Your task to perform on an android device: Go to eBay Image 0: 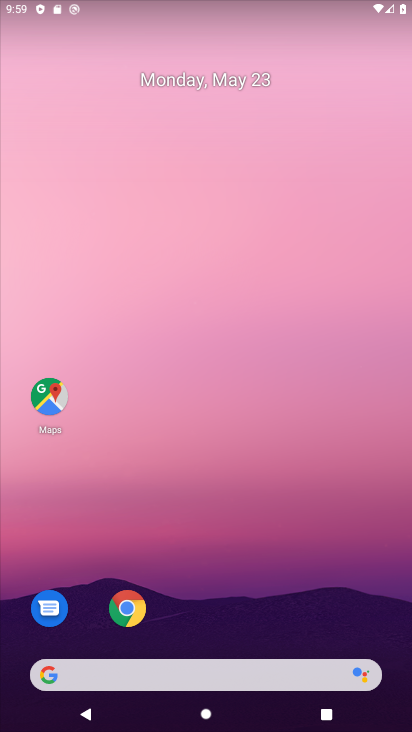
Step 0: click (129, 617)
Your task to perform on an android device: Go to eBay Image 1: 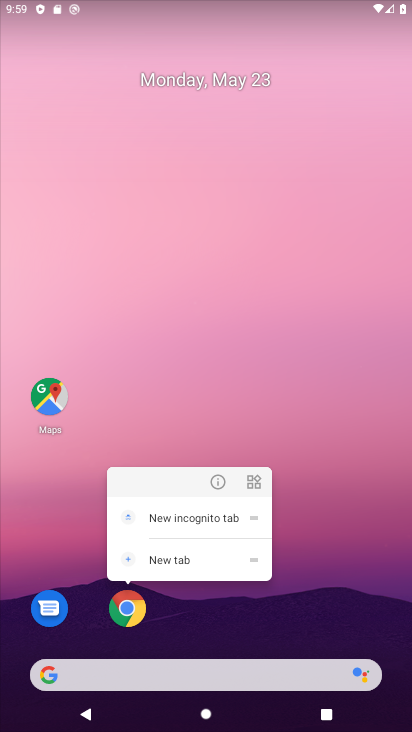
Step 1: click (130, 605)
Your task to perform on an android device: Go to eBay Image 2: 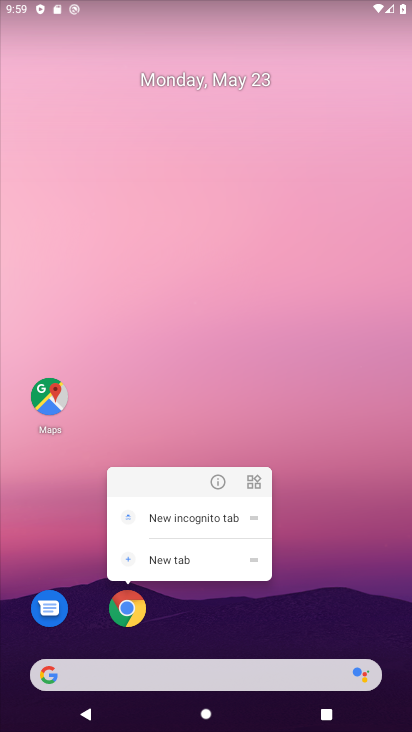
Step 2: click (136, 608)
Your task to perform on an android device: Go to eBay Image 3: 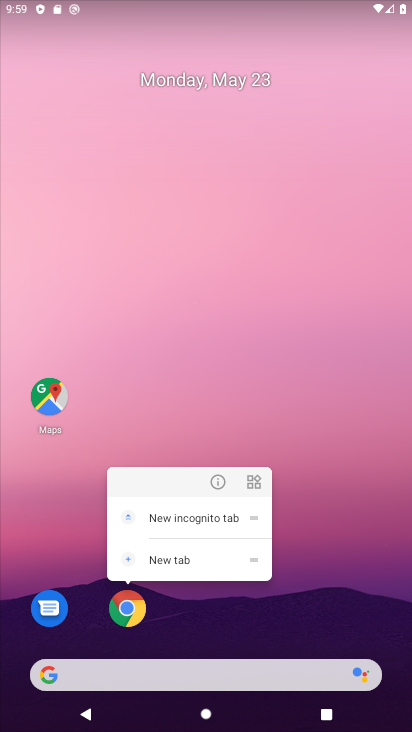
Step 3: click (134, 613)
Your task to perform on an android device: Go to eBay Image 4: 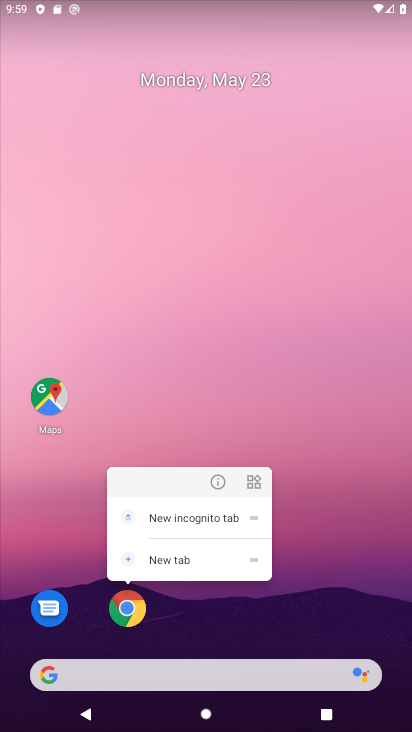
Step 4: click (134, 613)
Your task to perform on an android device: Go to eBay Image 5: 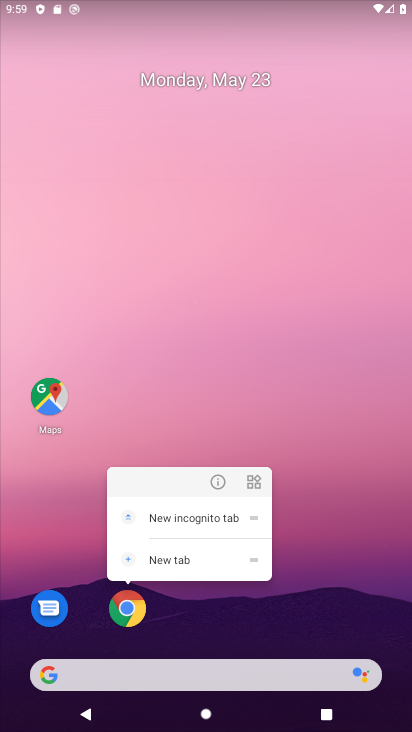
Step 5: click (127, 615)
Your task to perform on an android device: Go to eBay Image 6: 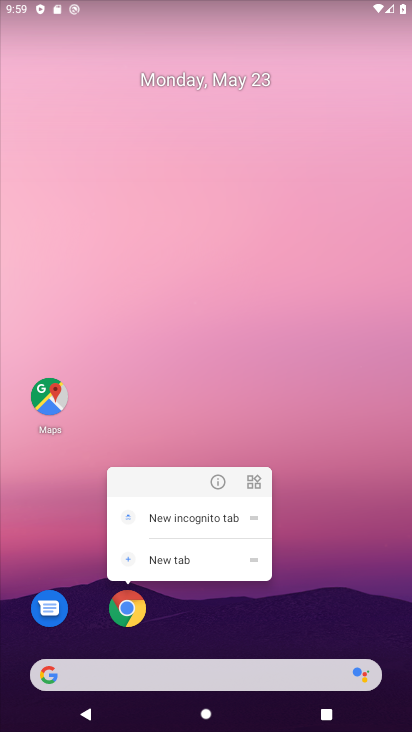
Step 6: click (127, 611)
Your task to perform on an android device: Go to eBay Image 7: 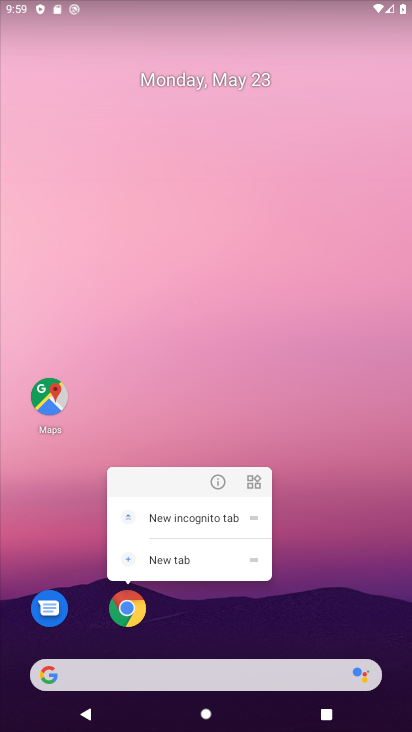
Step 7: click (128, 620)
Your task to perform on an android device: Go to eBay Image 8: 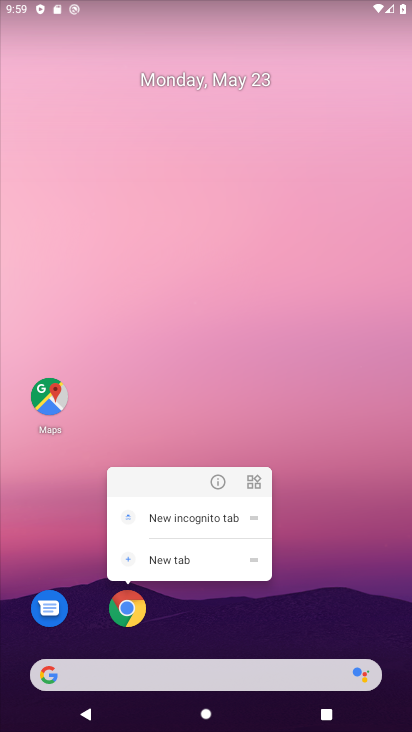
Step 8: click (128, 607)
Your task to perform on an android device: Go to eBay Image 9: 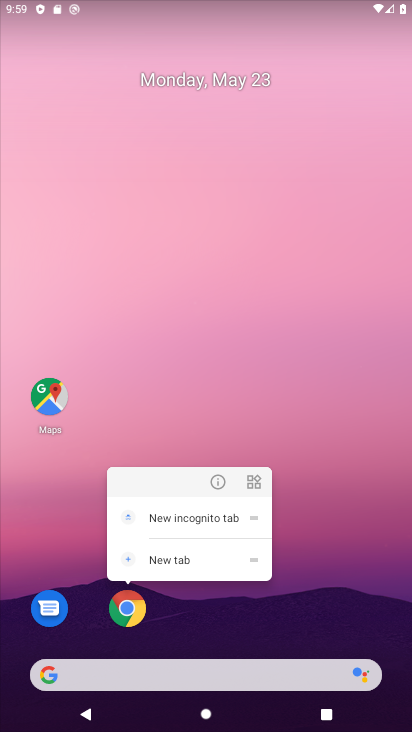
Step 9: click (131, 615)
Your task to perform on an android device: Go to eBay Image 10: 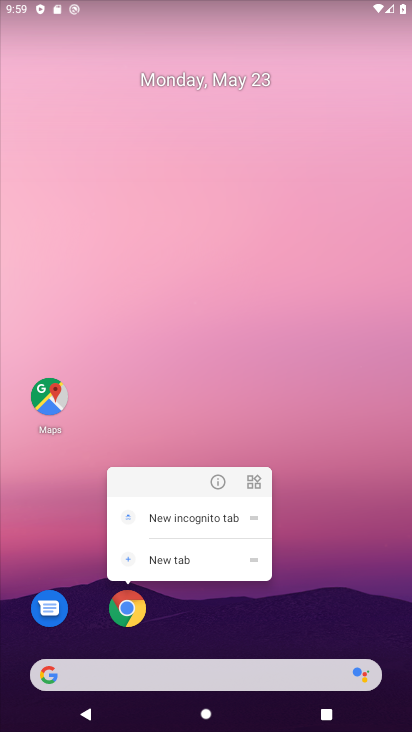
Step 10: click (133, 618)
Your task to perform on an android device: Go to eBay Image 11: 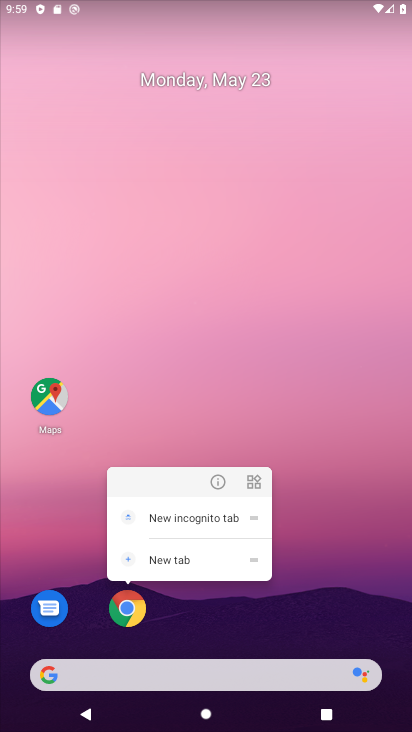
Step 11: click (134, 621)
Your task to perform on an android device: Go to eBay Image 12: 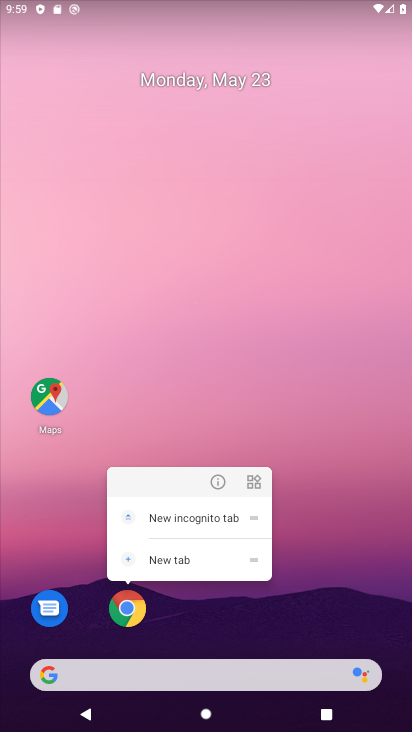
Step 12: drag from (263, 601) to (339, 139)
Your task to perform on an android device: Go to eBay Image 13: 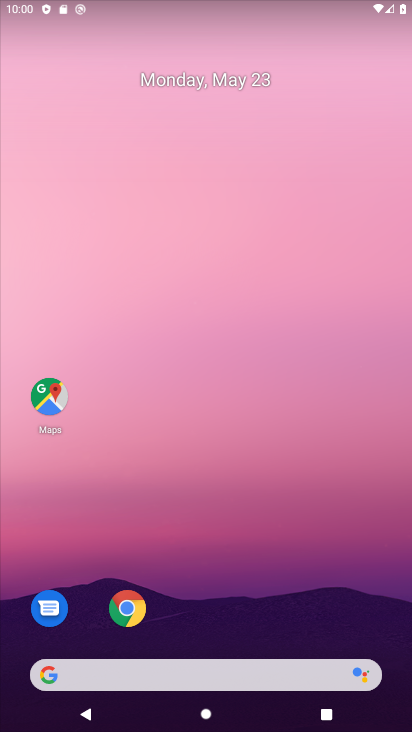
Step 13: click (133, 614)
Your task to perform on an android device: Go to eBay Image 14: 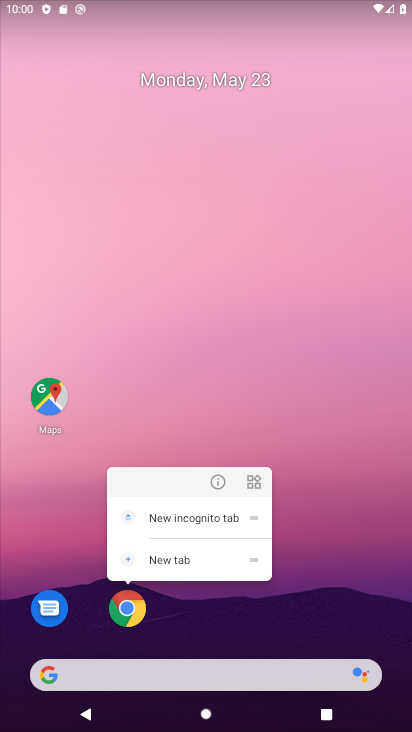
Step 14: click (134, 613)
Your task to perform on an android device: Go to eBay Image 15: 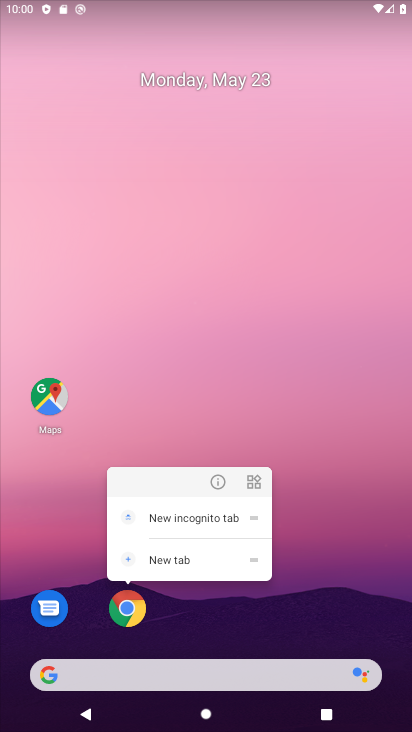
Step 15: click (133, 605)
Your task to perform on an android device: Go to eBay Image 16: 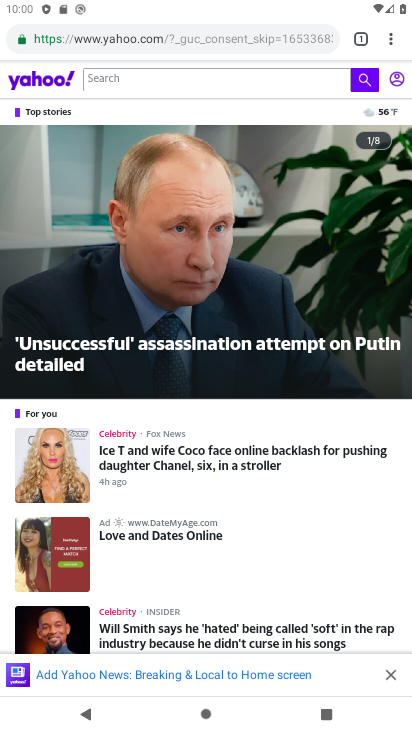
Step 16: drag from (390, 33) to (344, 73)
Your task to perform on an android device: Go to eBay Image 17: 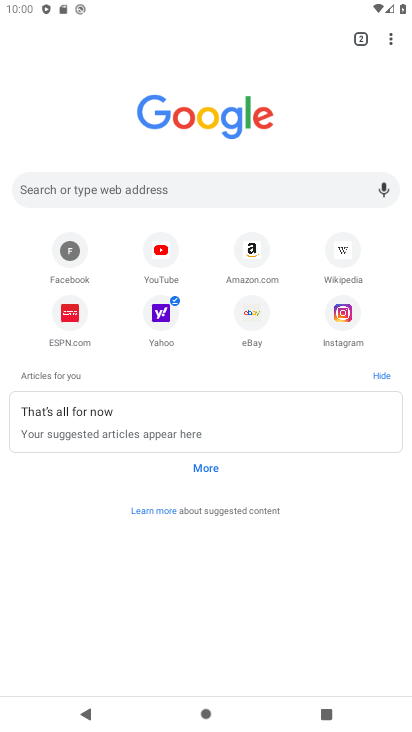
Step 17: click (256, 328)
Your task to perform on an android device: Go to eBay Image 18: 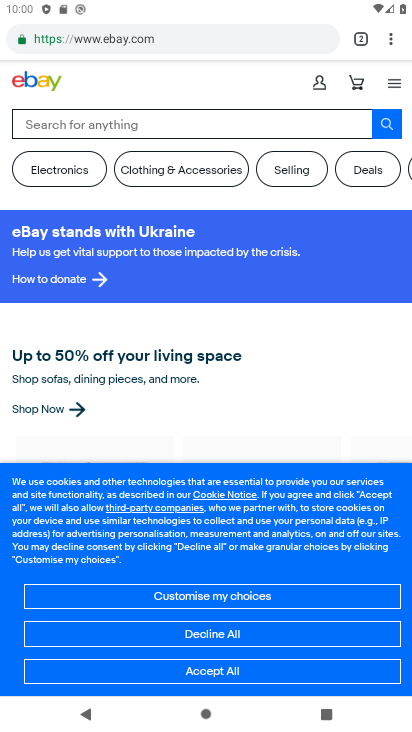
Step 18: task complete